Your task to perform on an android device: turn off notifications in google photos Image 0: 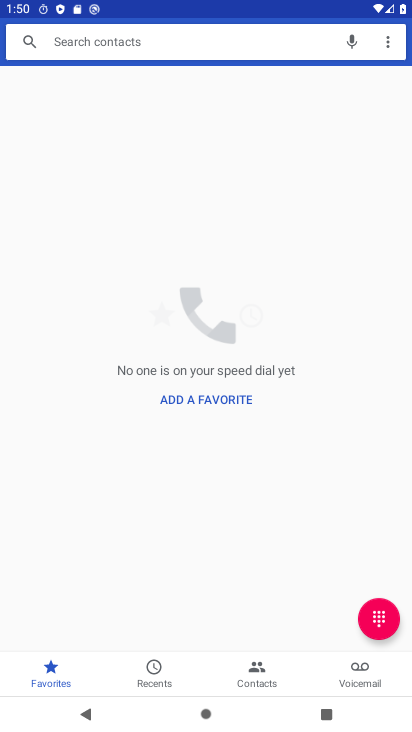
Step 0: press home button
Your task to perform on an android device: turn off notifications in google photos Image 1: 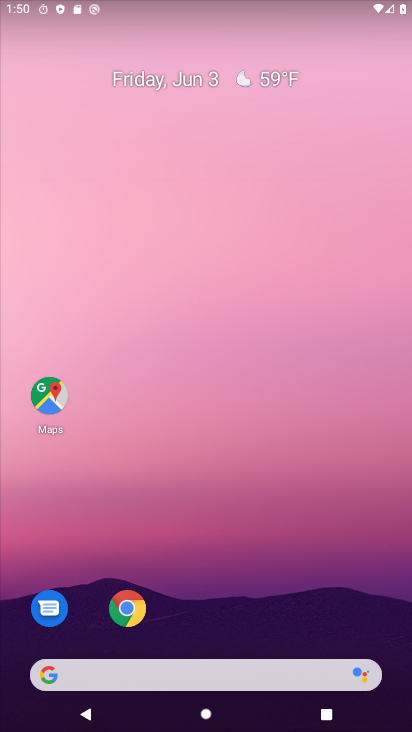
Step 1: drag from (219, 672) to (227, 32)
Your task to perform on an android device: turn off notifications in google photos Image 2: 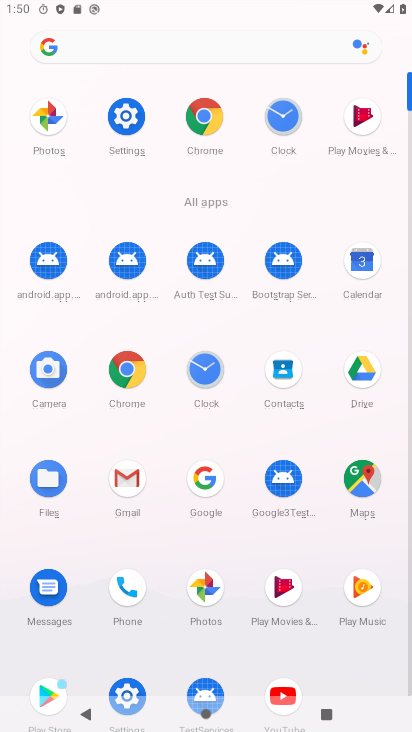
Step 2: click (209, 600)
Your task to perform on an android device: turn off notifications in google photos Image 3: 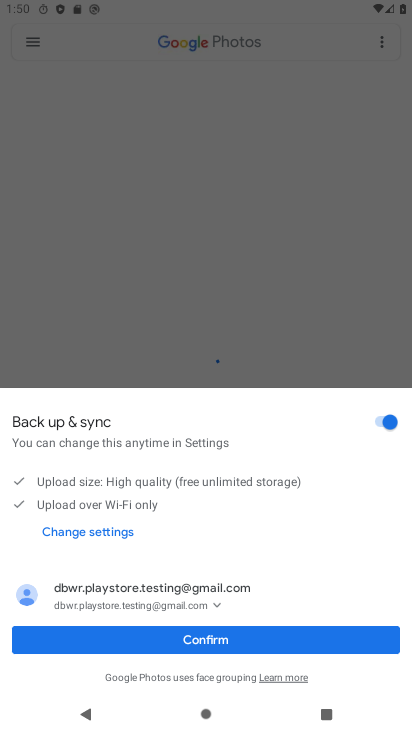
Step 3: drag from (285, 648) to (383, 648)
Your task to perform on an android device: turn off notifications in google photos Image 4: 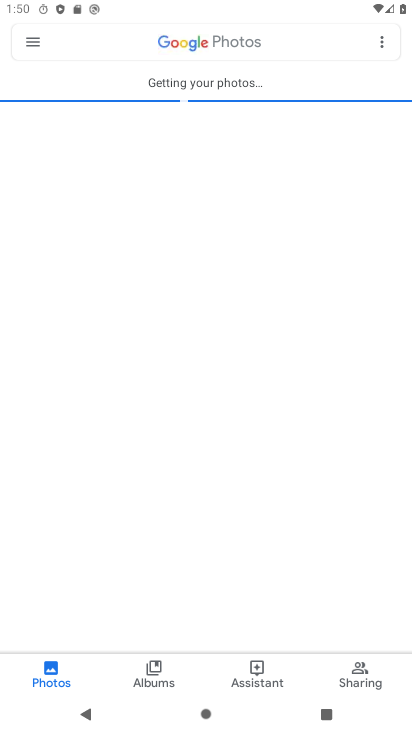
Step 4: click (35, 49)
Your task to perform on an android device: turn off notifications in google photos Image 5: 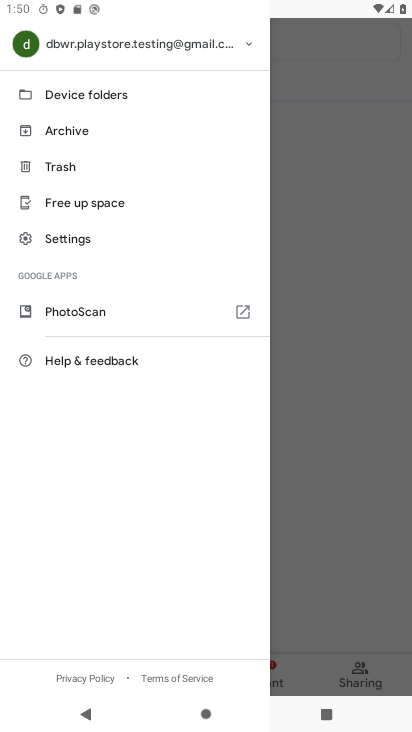
Step 5: click (51, 235)
Your task to perform on an android device: turn off notifications in google photos Image 6: 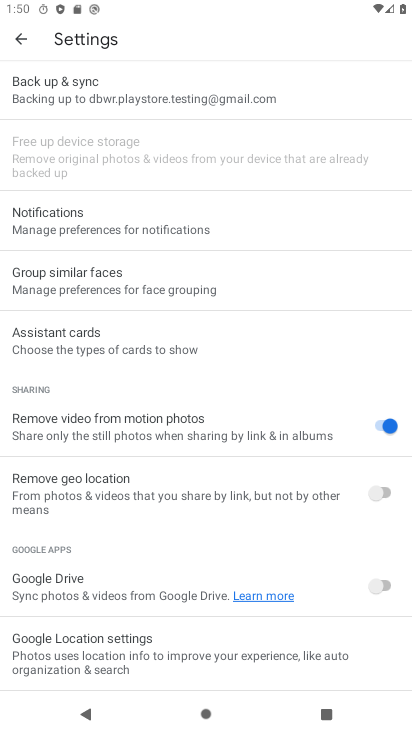
Step 6: click (108, 233)
Your task to perform on an android device: turn off notifications in google photos Image 7: 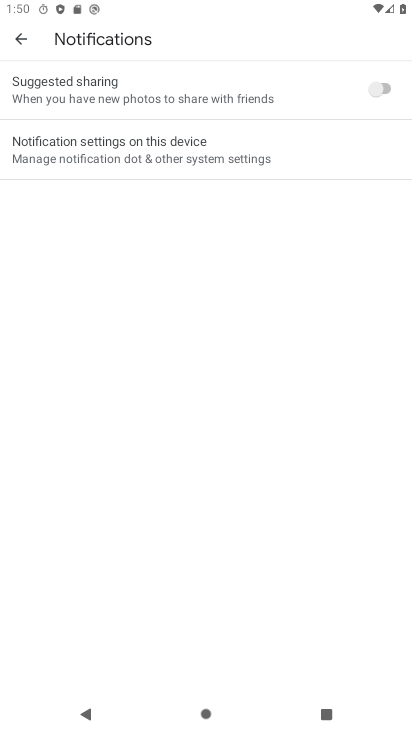
Step 7: click (253, 149)
Your task to perform on an android device: turn off notifications in google photos Image 8: 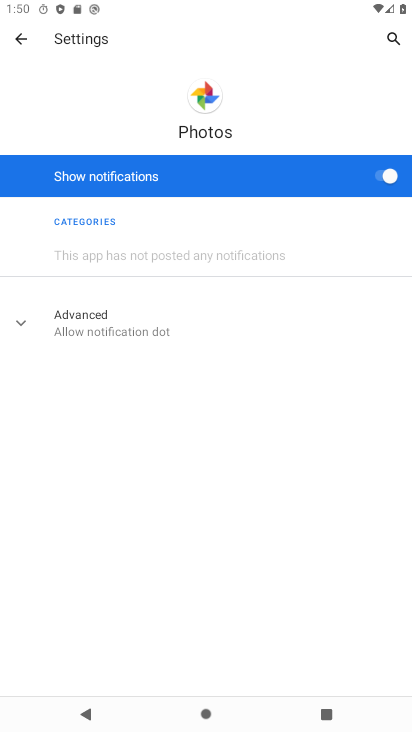
Step 8: click (389, 188)
Your task to perform on an android device: turn off notifications in google photos Image 9: 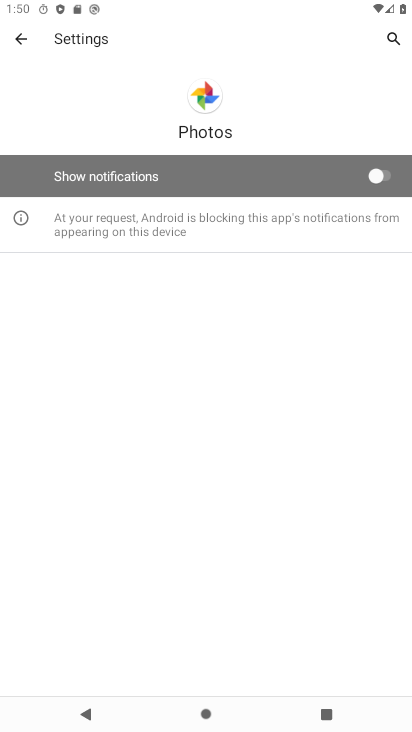
Step 9: task complete